Your task to perform on an android device: Go to Reddit.com Image 0: 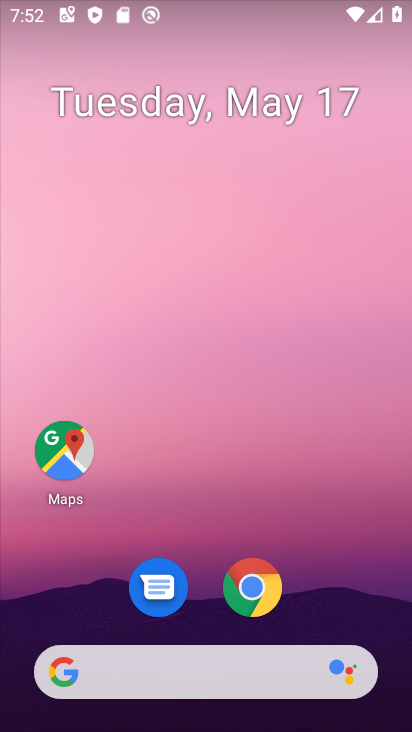
Step 0: click (249, 587)
Your task to perform on an android device: Go to Reddit.com Image 1: 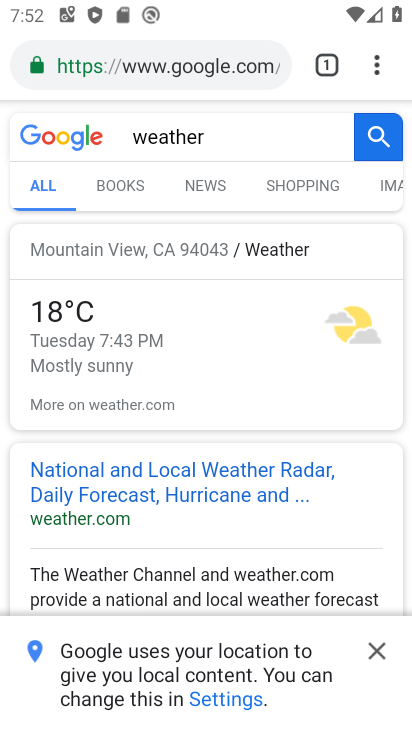
Step 1: click (187, 56)
Your task to perform on an android device: Go to Reddit.com Image 2: 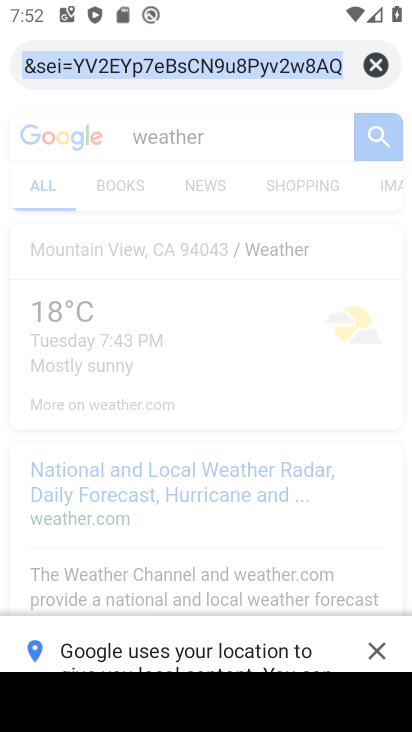
Step 2: type "reddit.com"
Your task to perform on an android device: Go to Reddit.com Image 3: 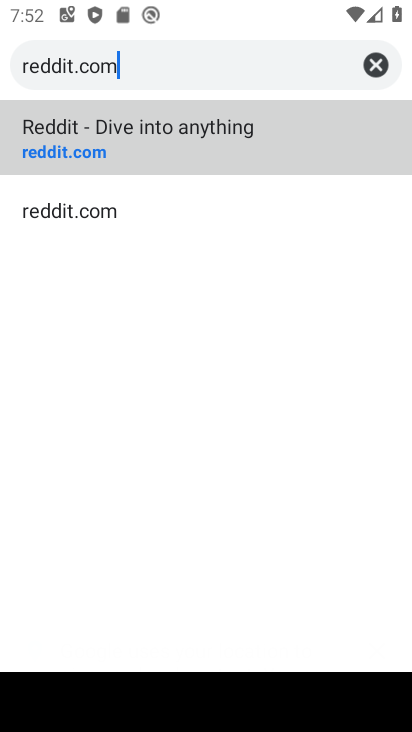
Step 3: click (64, 153)
Your task to perform on an android device: Go to Reddit.com Image 4: 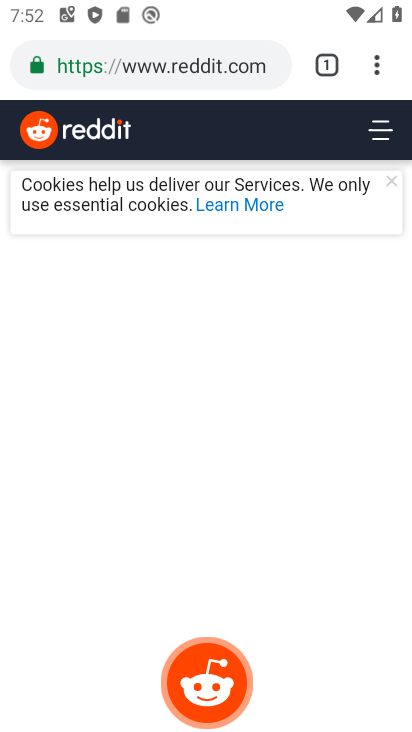
Step 4: task complete